Your task to perform on an android device: toggle pop-ups in chrome Image 0: 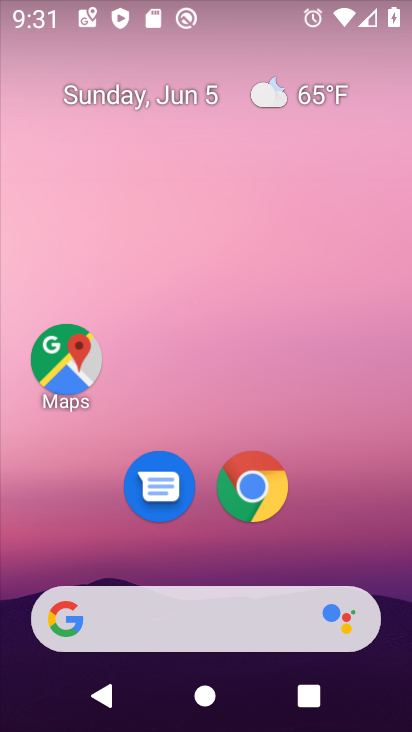
Step 0: drag from (371, 531) to (329, 142)
Your task to perform on an android device: toggle pop-ups in chrome Image 1: 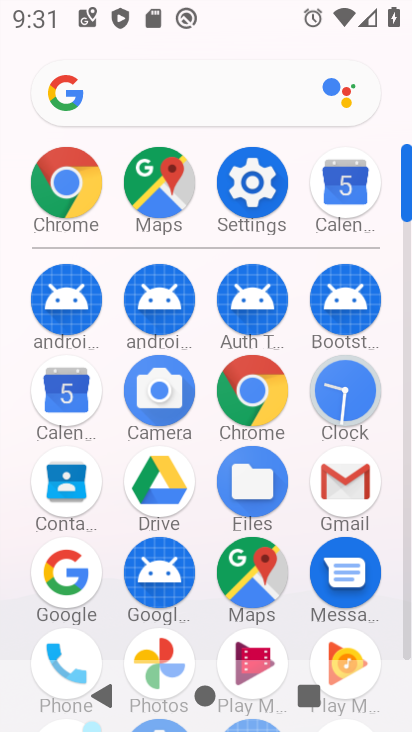
Step 1: click (233, 398)
Your task to perform on an android device: toggle pop-ups in chrome Image 2: 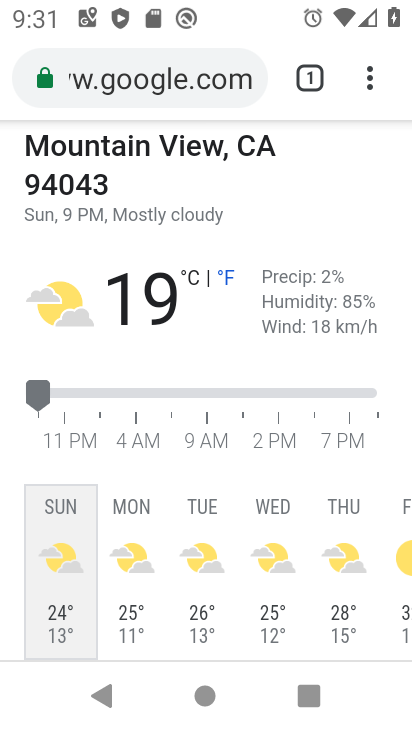
Step 2: drag from (375, 91) to (155, 571)
Your task to perform on an android device: toggle pop-ups in chrome Image 3: 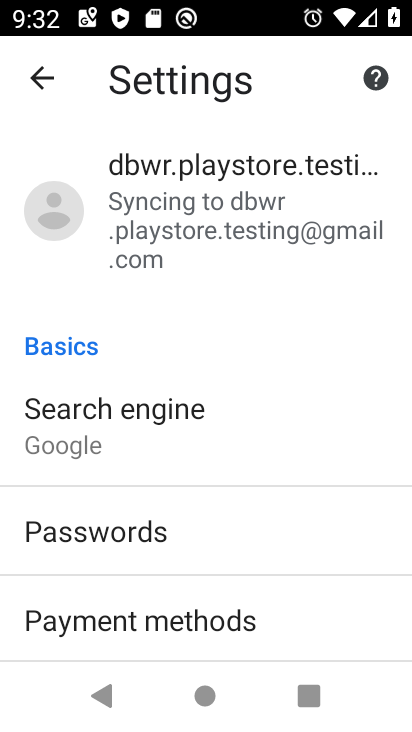
Step 3: drag from (315, 602) to (316, 212)
Your task to perform on an android device: toggle pop-ups in chrome Image 4: 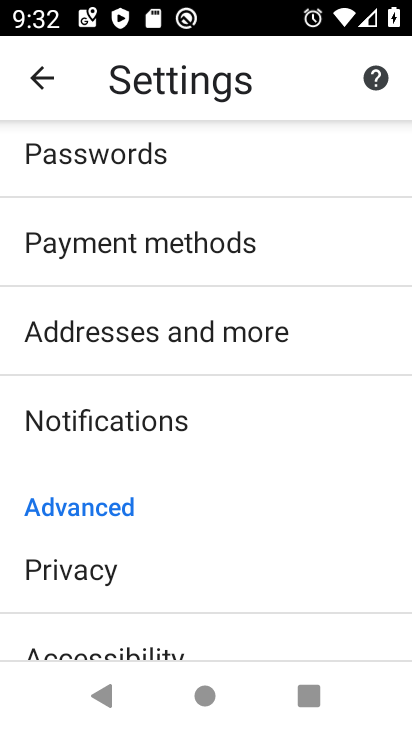
Step 4: drag from (259, 520) to (280, 187)
Your task to perform on an android device: toggle pop-ups in chrome Image 5: 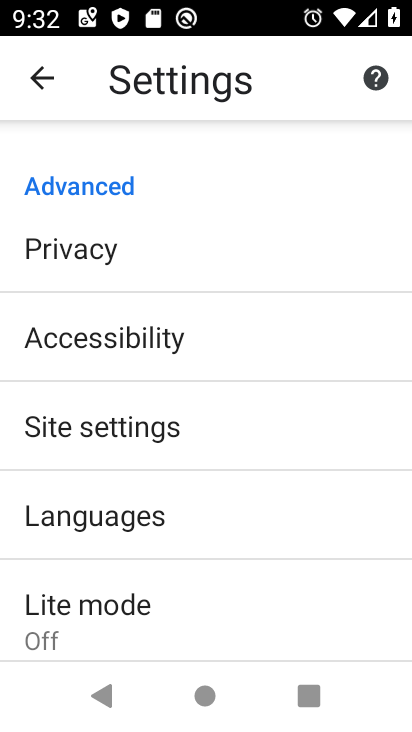
Step 5: click (195, 425)
Your task to perform on an android device: toggle pop-ups in chrome Image 6: 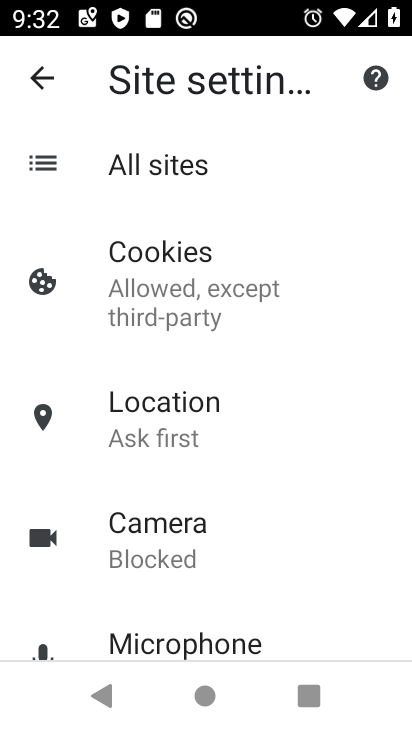
Step 6: drag from (263, 522) to (281, 179)
Your task to perform on an android device: toggle pop-ups in chrome Image 7: 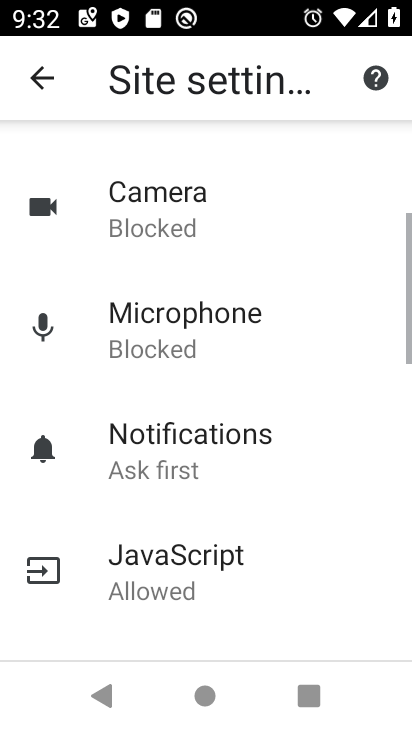
Step 7: drag from (256, 546) to (300, 290)
Your task to perform on an android device: toggle pop-ups in chrome Image 8: 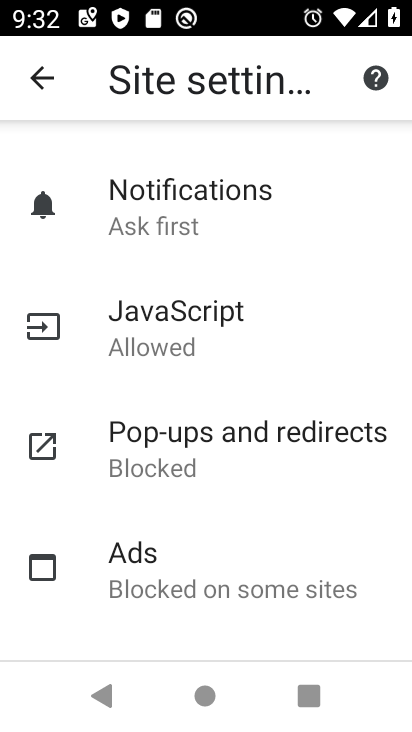
Step 8: click (226, 454)
Your task to perform on an android device: toggle pop-ups in chrome Image 9: 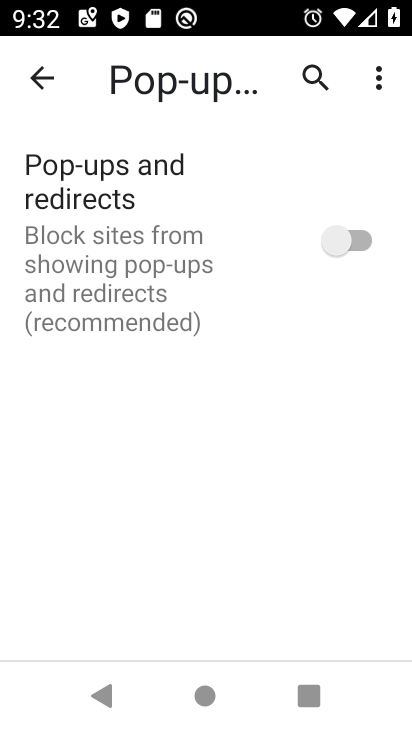
Step 9: click (362, 240)
Your task to perform on an android device: toggle pop-ups in chrome Image 10: 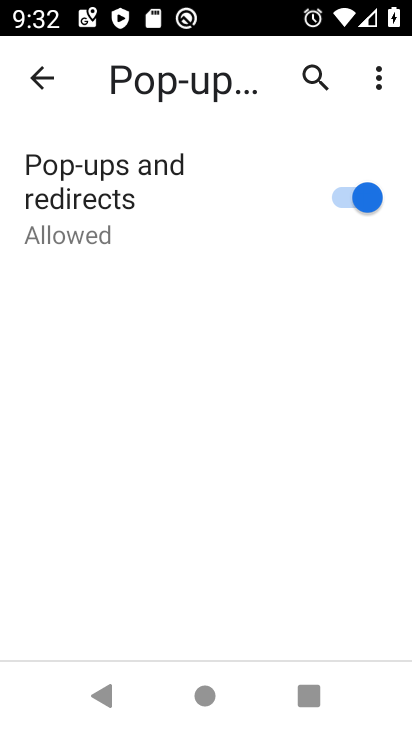
Step 10: task complete